Your task to perform on an android device: turn on notifications settings in the gmail app Image 0: 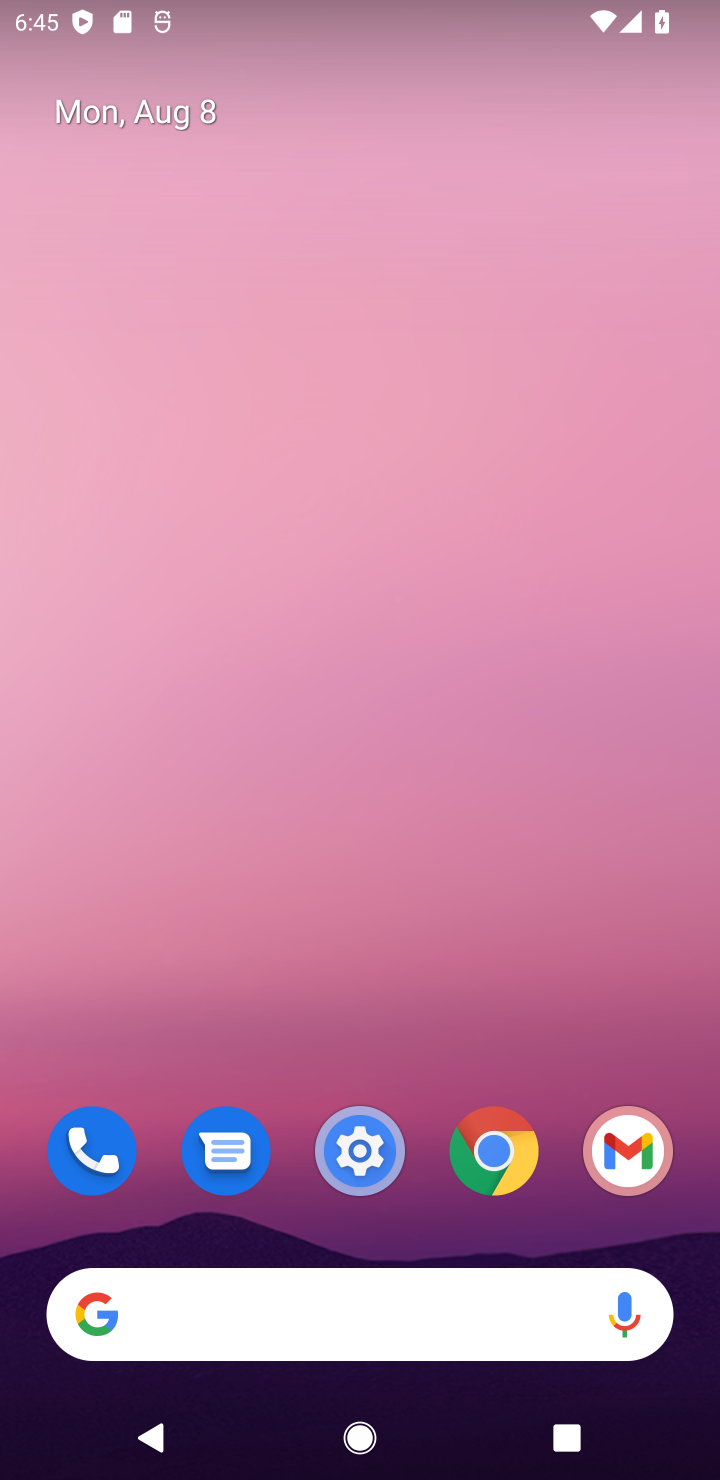
Step 0: click (638, 1155)
Your task to perform on an android device: turn on notifications settings in the gmail app Image 1: 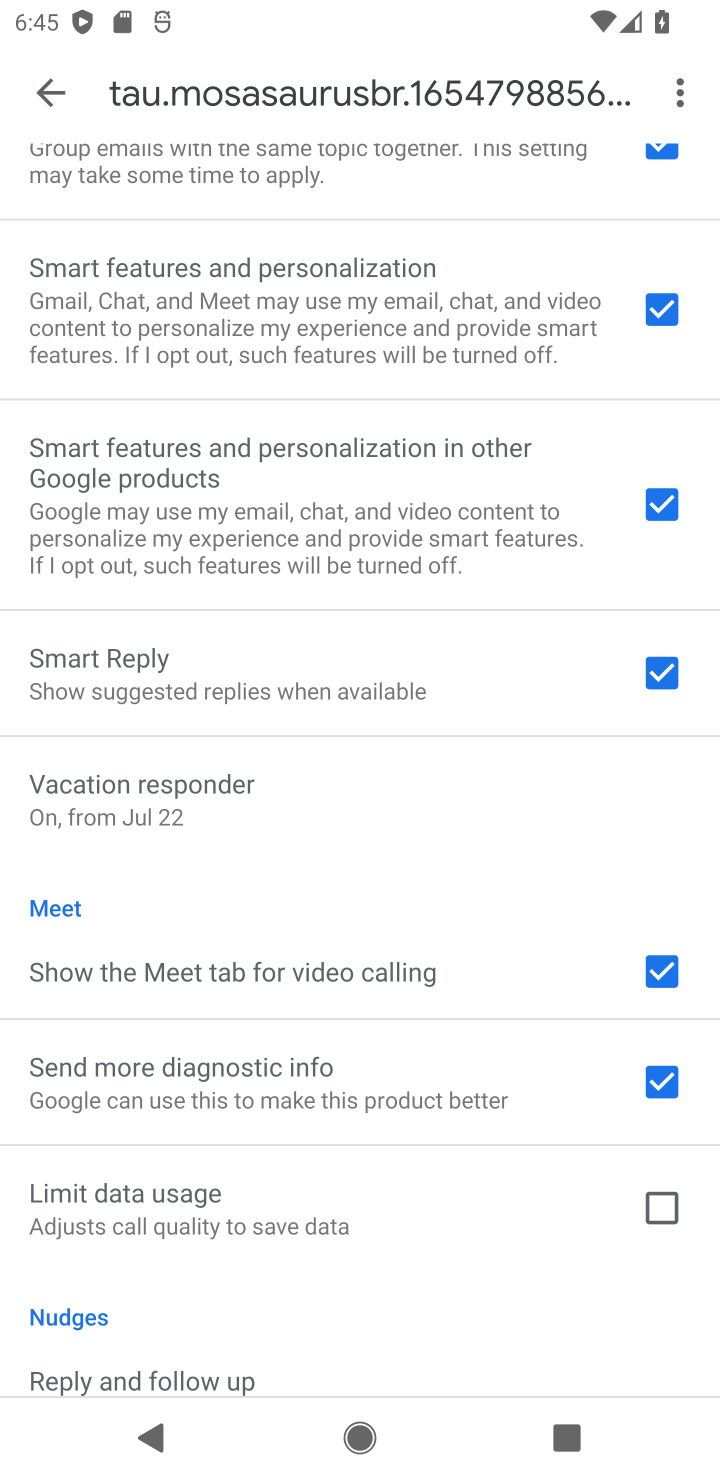
Step 1: drag from (264, 361) to (223, 948)
Your task to perform on an android device: turn on notifications settings in the gmail app Image 2: 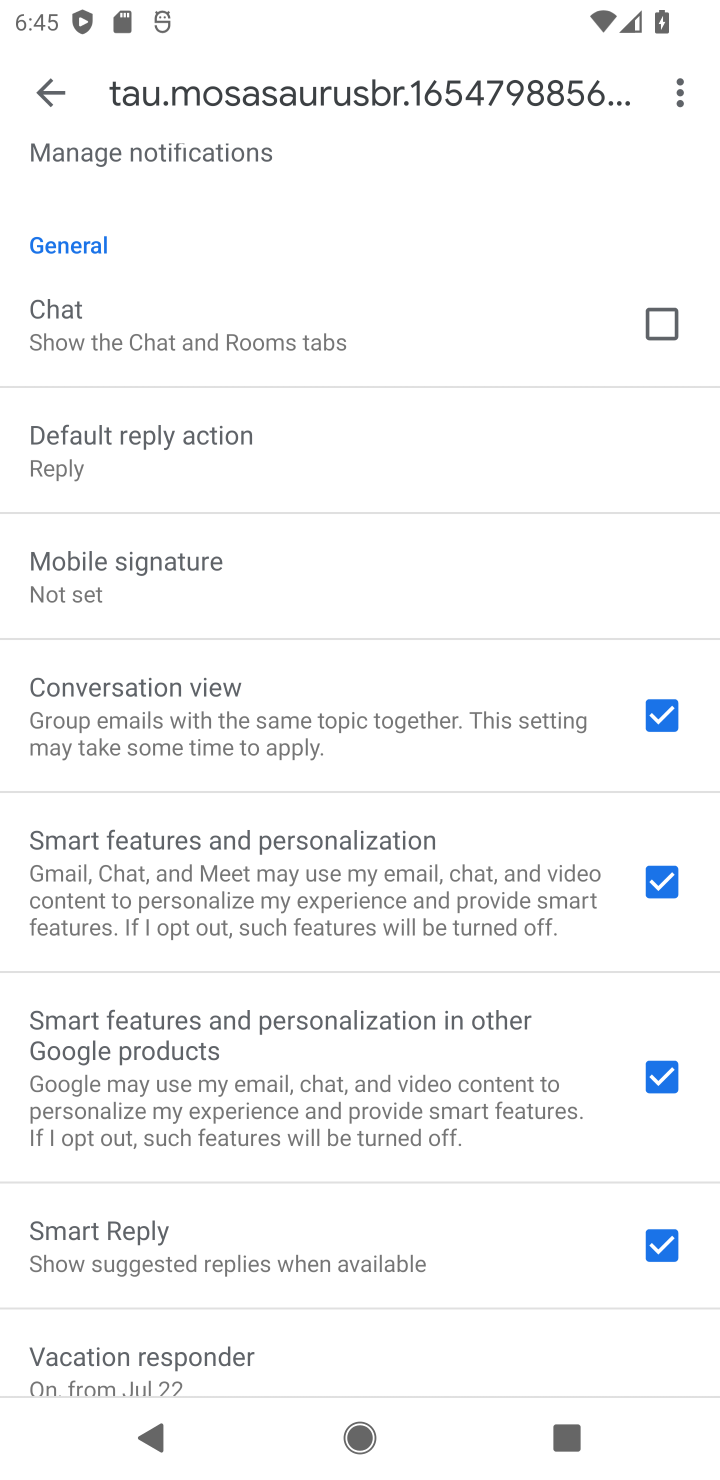
Step 2: drag from (314, 502) to (294, 804)
Your task to perform on an android device: turn on notifications settings in the gmail app Image 3: 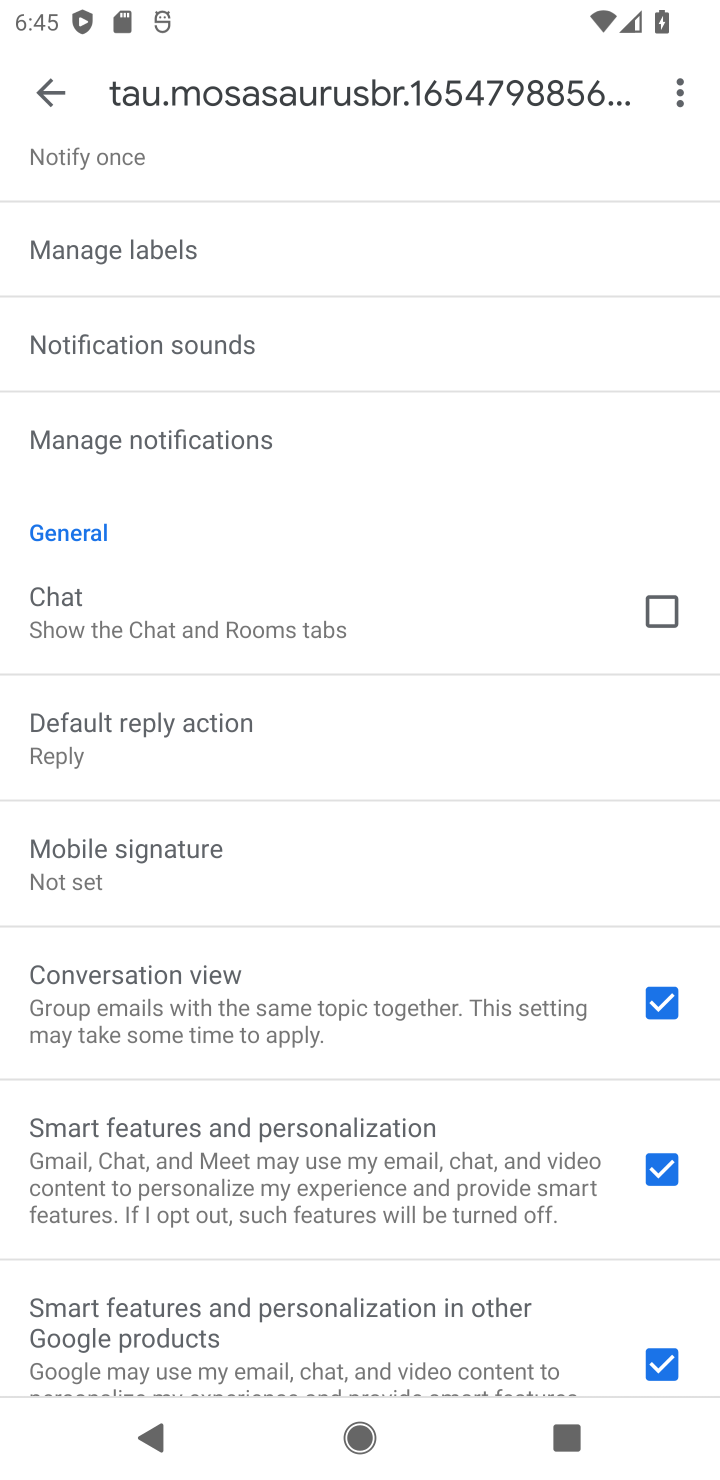
Step 3: click (203, 437)
Your task to perform on an android device: turn on notifications settings in the gmail app Image 4: 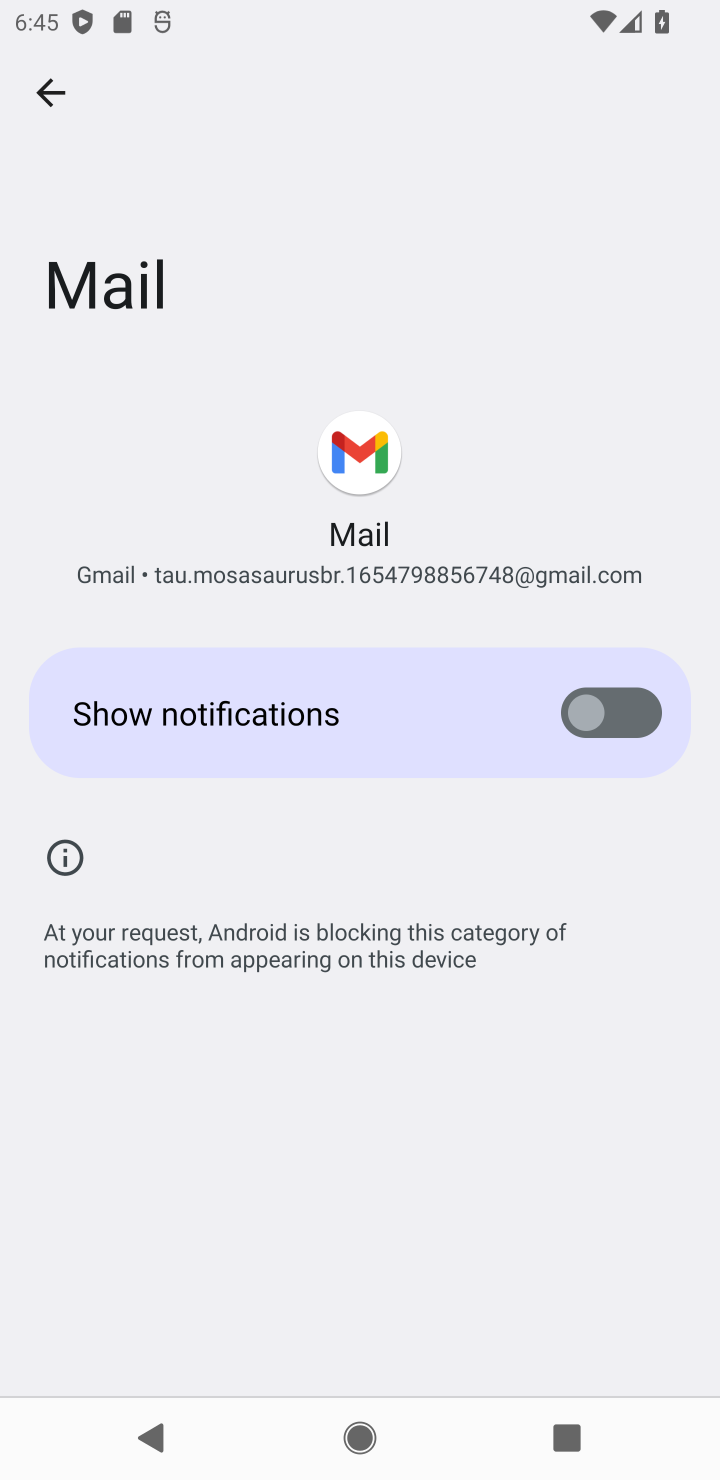
Step 4: click (629, 707)
Your task to perform on an android device: turn on notifications settings in the gmail app Image 5: 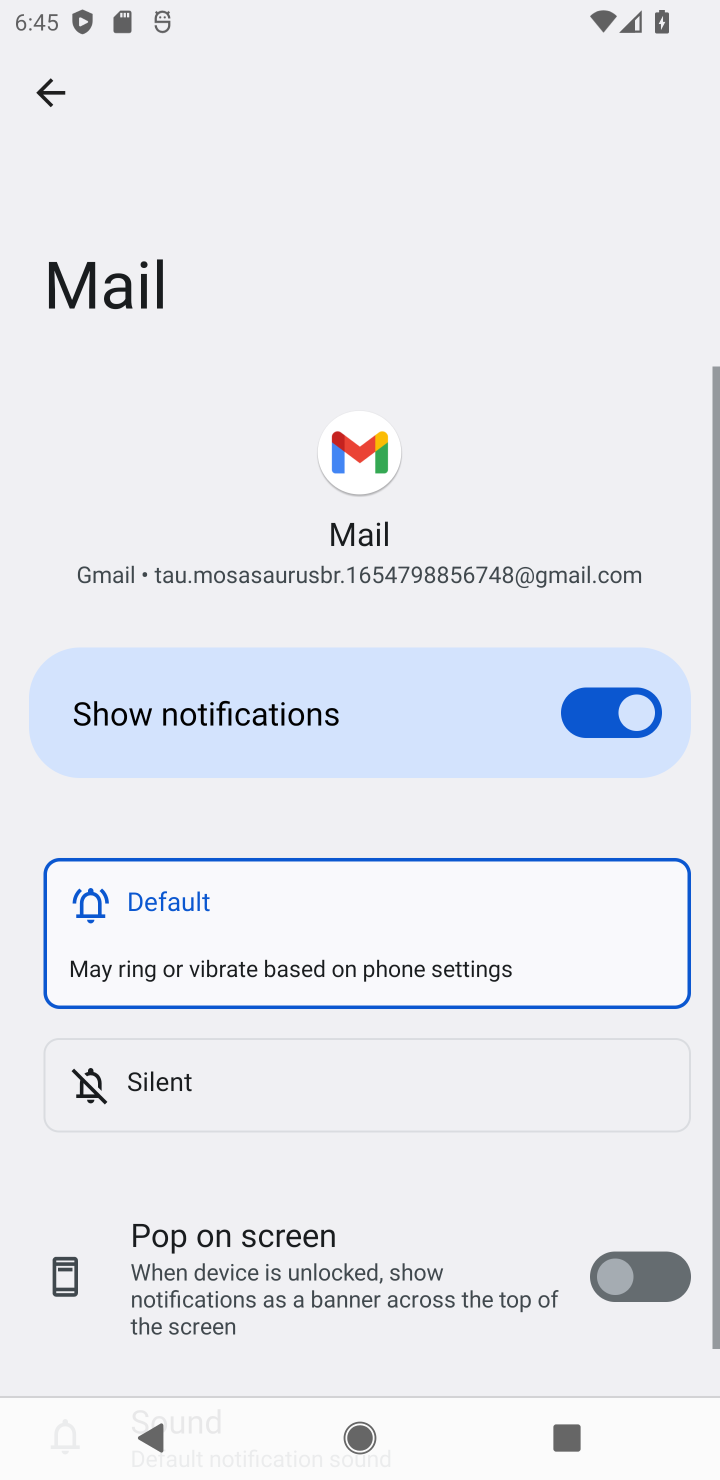
Step 5: task complete